Your task to perform on an android device: star an email in the gmail app Image 0: 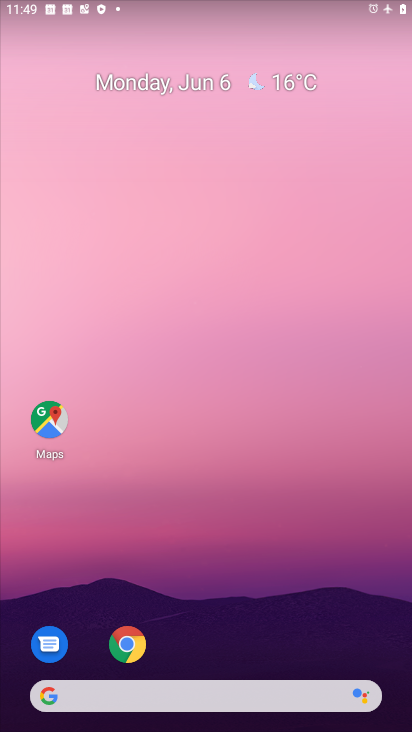
Step 0: drag from (221, 641) to (403, 162)
Your task to perform on an android device: star an email in the gmail app Image 1: 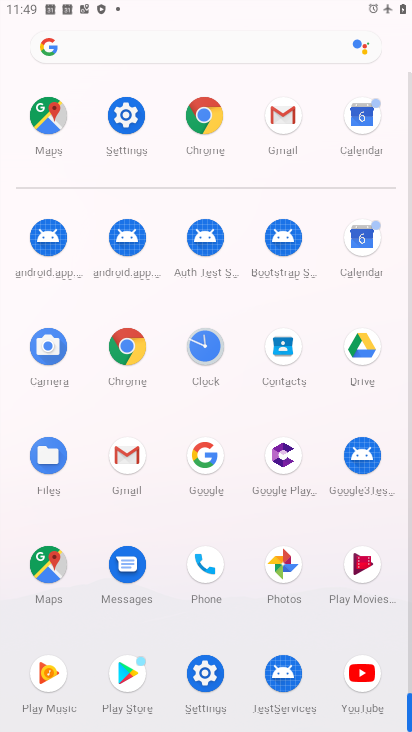
Step 1: click (140, 469)
Your task to perform on an android device: star an email in the gmail app Image 2: 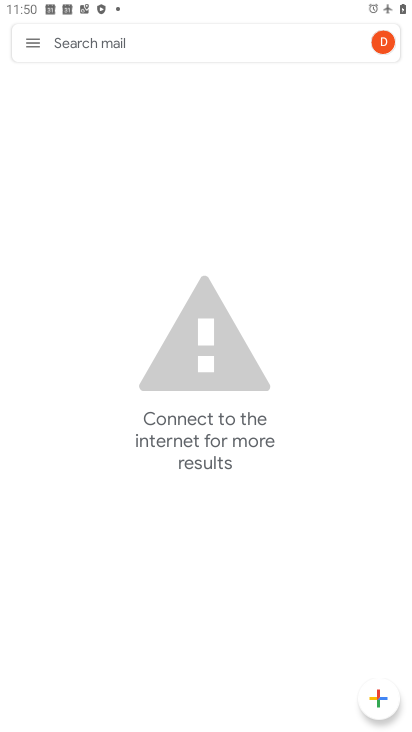
Step 2: click (37, 44)
Your task to perform on an android device: star an email in the gmail app Image 3: 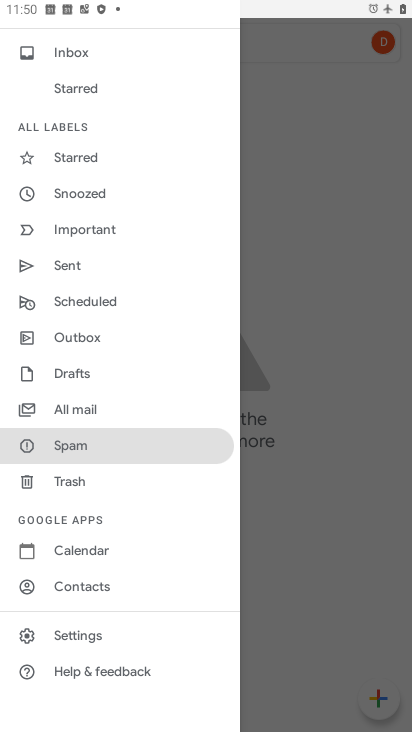
Step 3: click (105, 414)
Your task to perform on an android device: star an email in the gmail app Image 4: 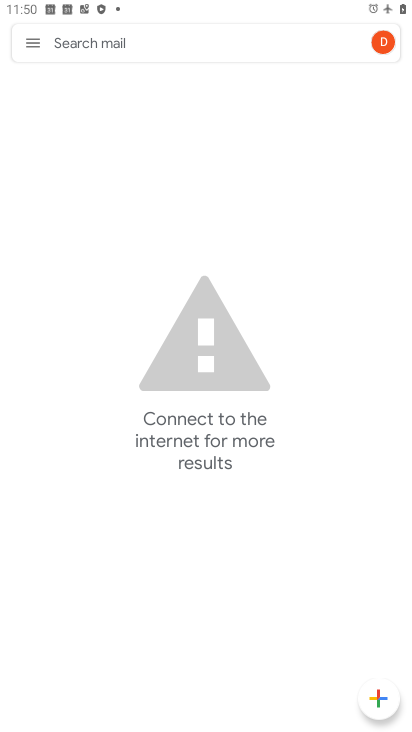
Step 4: task complete